Your task to perform on an android device: Open the web browser Image 0: 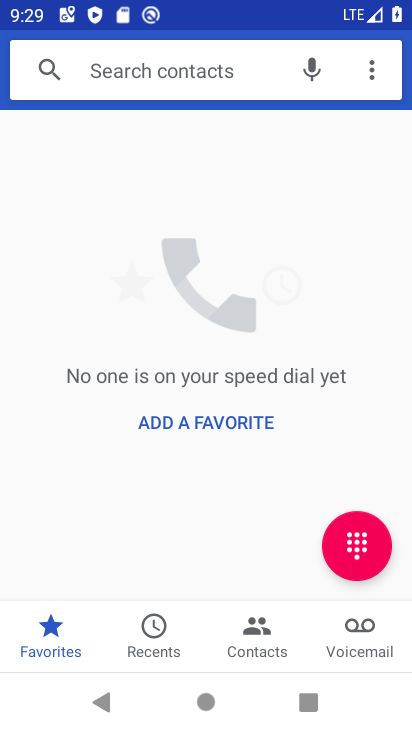
Step 0: press home button
Your task to perform on an android device: Open the web browser Image 1: 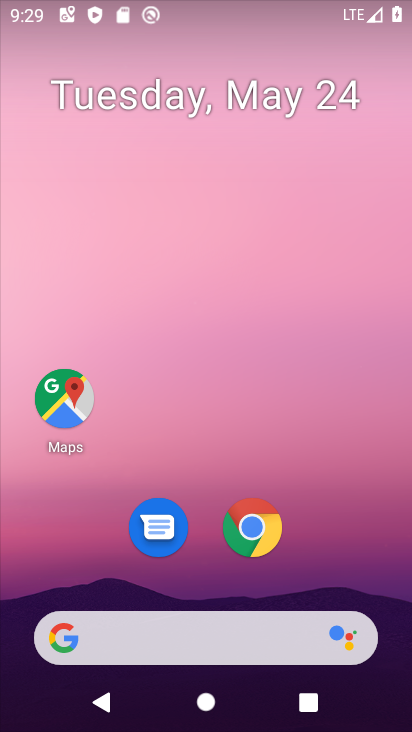
Step 1: click (254, 524)
Your task to perform on an android device: Open the web browser Image 2: 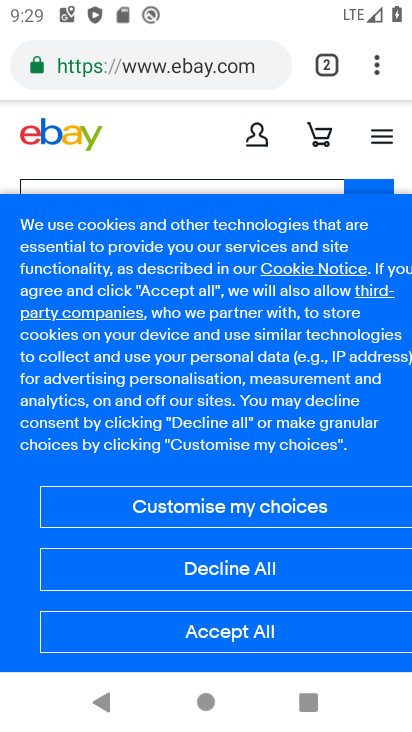
Step 2: task complete